Your task to perform on an android device: Open notification settings Image 0: 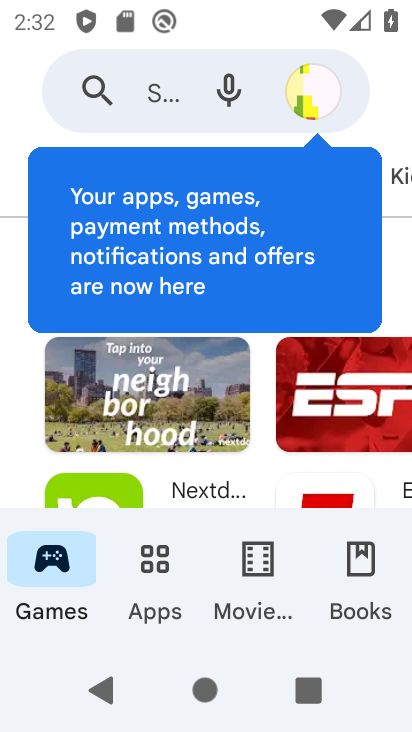
Step 0: press home button
Your task to perform on an android device: Open notification settings Image 1: 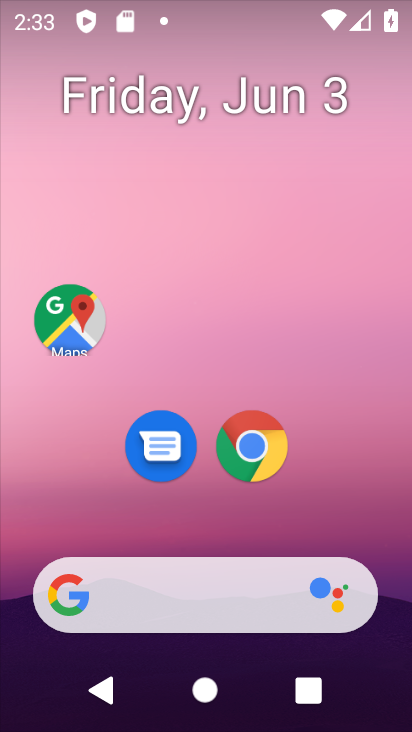
Step 1: task complete